Your task to perform on an android device: Open wifi settings Image 0: 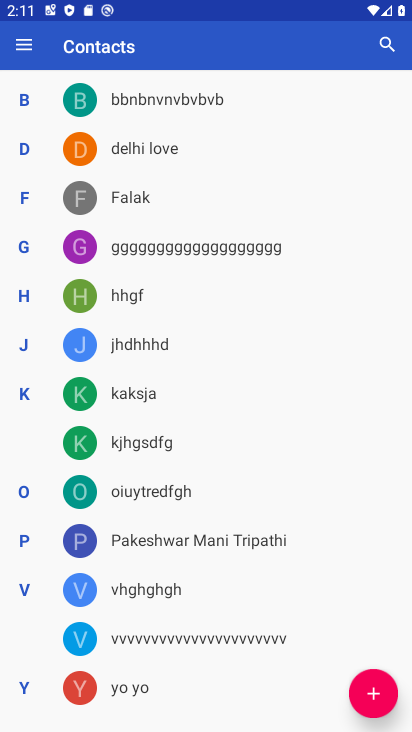
Step 0: press home button
Your task to perform on an android device: Open wifi settings Image 1: 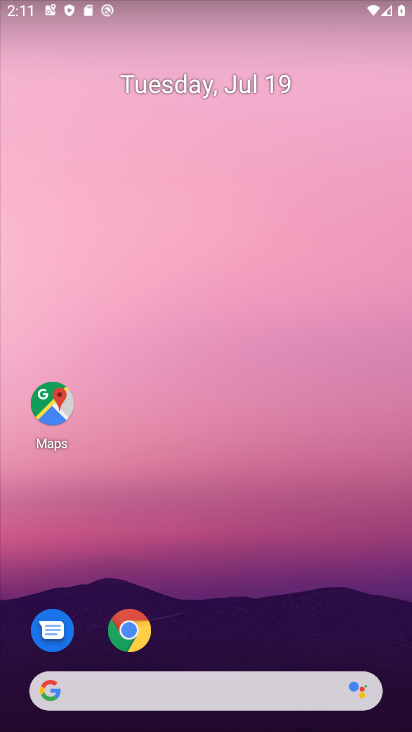
Step 1: drag from (376, 630) to (318, 72)
Your task to perform on an android device: Open wifi settings Image 2: 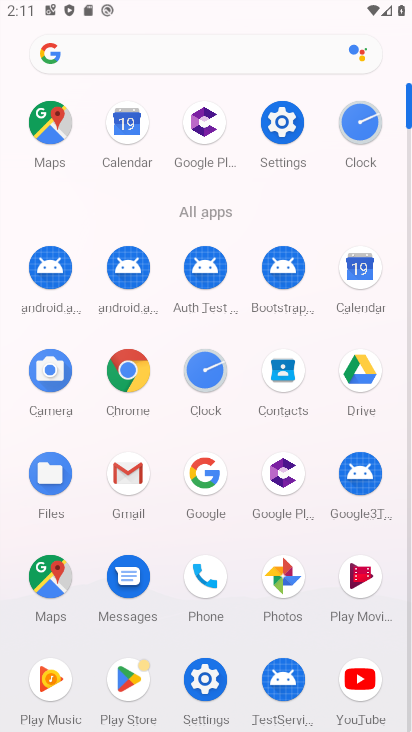
Step 2: click (205, 678)
Your task to perform on an android device: Open wifi settings Image 3: 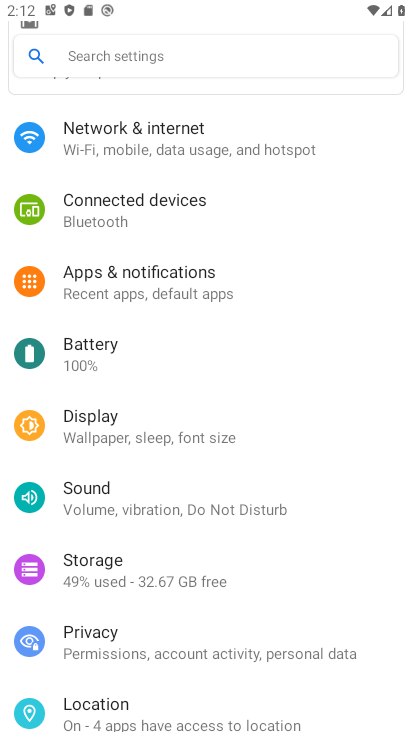
Step 3: click (119, 134)
Your task to perform on an android device: Open wifi settings Image 4: 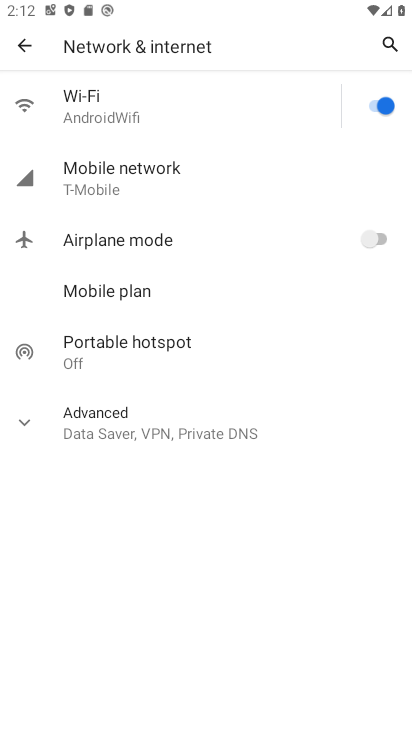
Step 4: click (75, 106)
Your task to perform on an android device: Open wifi settings Image 5: 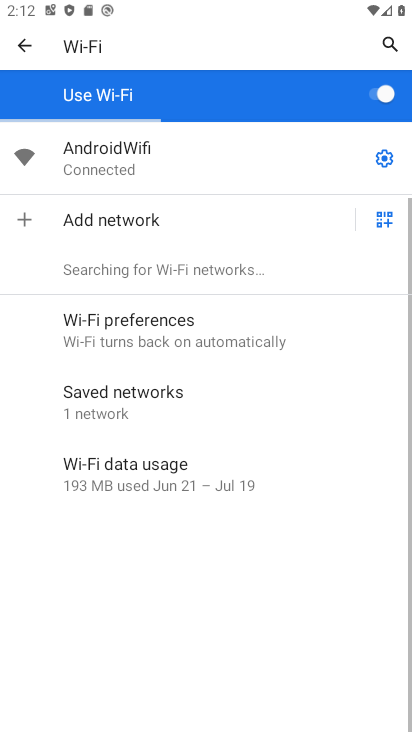
Step 5: click (384, 156)
Your task to perform on an android device: Open wifi settings Image 6: 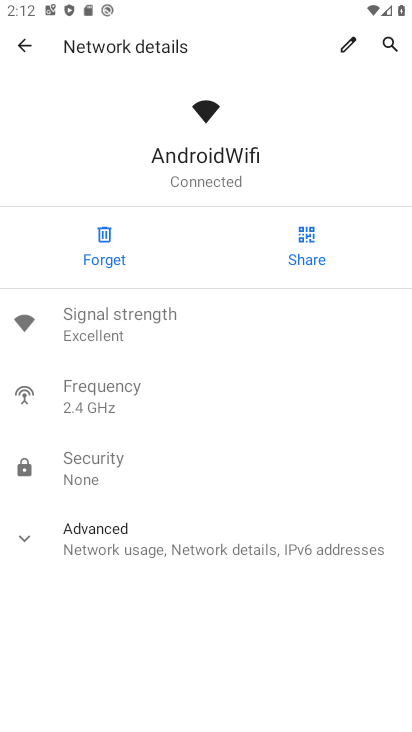
Step 6: task complete